Your task to perform on an android device: Show me popular videos on Youtube Image 0: 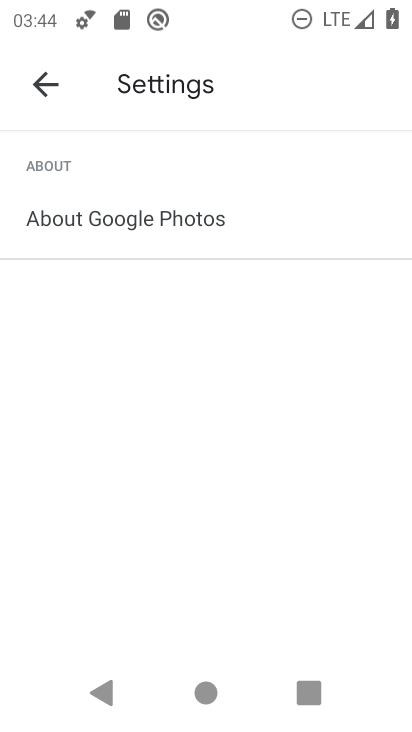
Step 0: press back button
Your task to perform on an android device: Show me popular videos on Youtube Image 1: 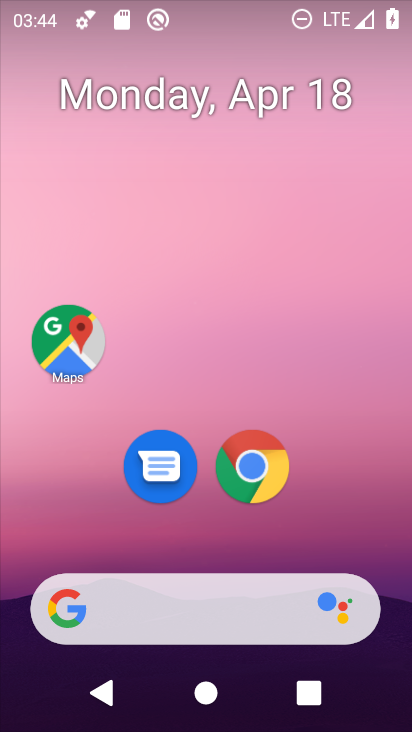
Step 1: drag from (305, 548) to (285, 120)
Your task to perform on an android device: Show me popular videos on Youtube Image 2: 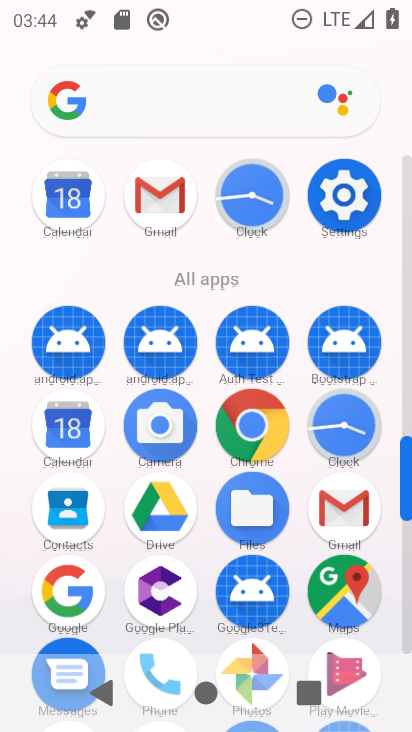
Step 2: drag from (405, 465) to (406, 712)
Your task to perform on an android device: Show me popular videos on Youtube Image 3: 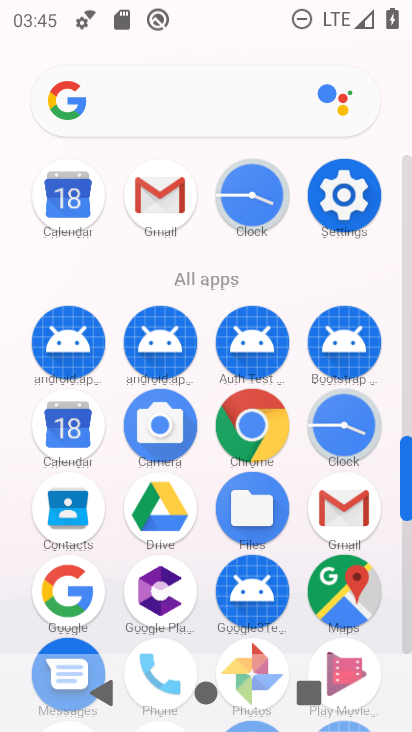
Step 3: drag from (408, 504) to (411, 681)
Your task to perform on an android device: Show me popular videos on Youtube Image 4: 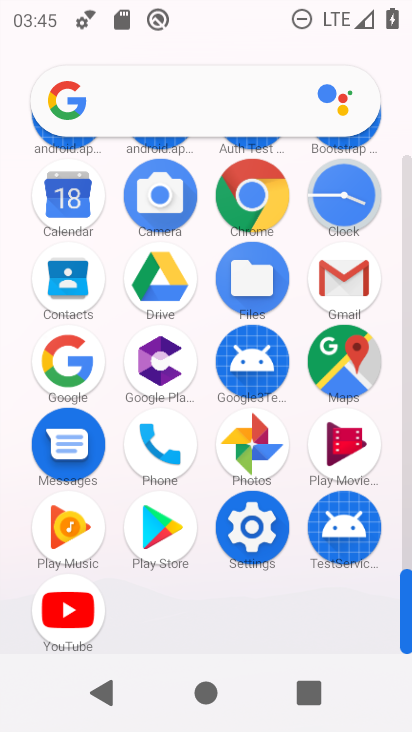
Step 4: click (87, 629)
Your task to perform on an android device: Show me popular videos on Youtube Image 5: 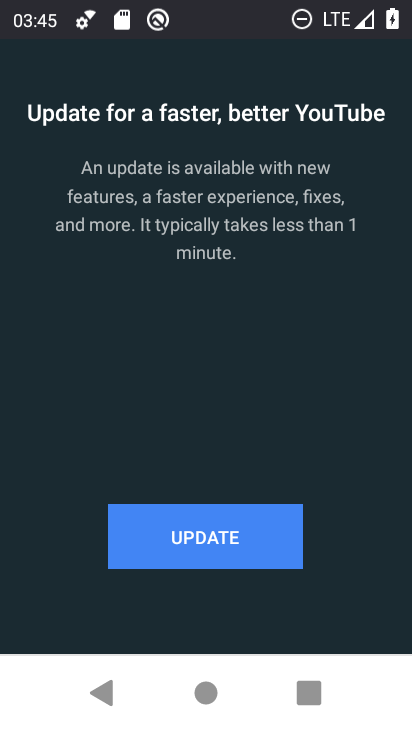
Step 5: click (232, 557)
Your task to perform on an android device: Show me popular videos on Youtube Image 6: 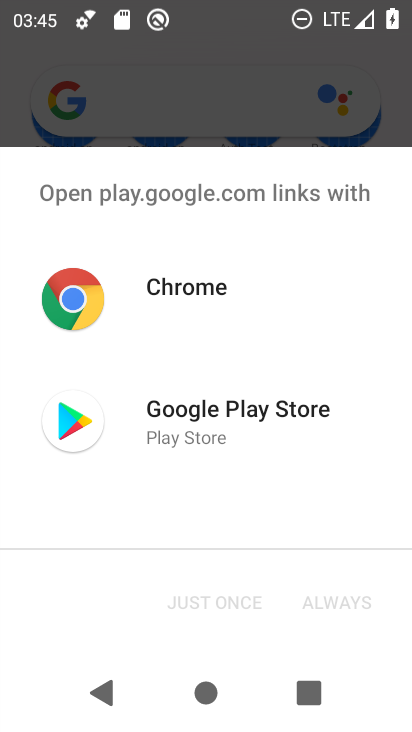
Step 6: click (195, 409)
Your task to perform on an android device: Show me popular videos on Youtube Image 7: 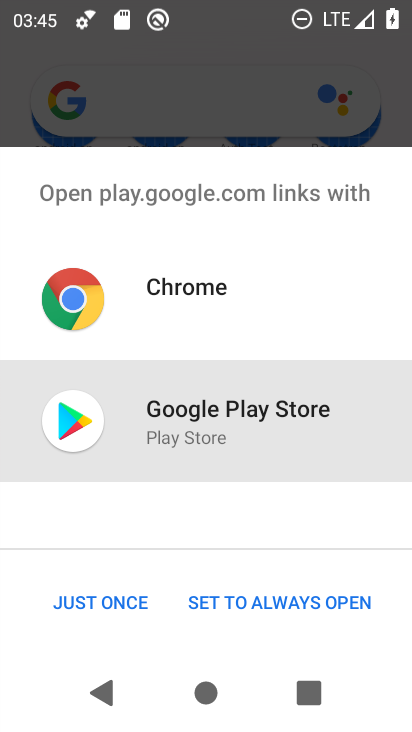
Step 7: click (235, 598)
Your task to perform on an android device: Show me popular videos on Youtube Image 8: 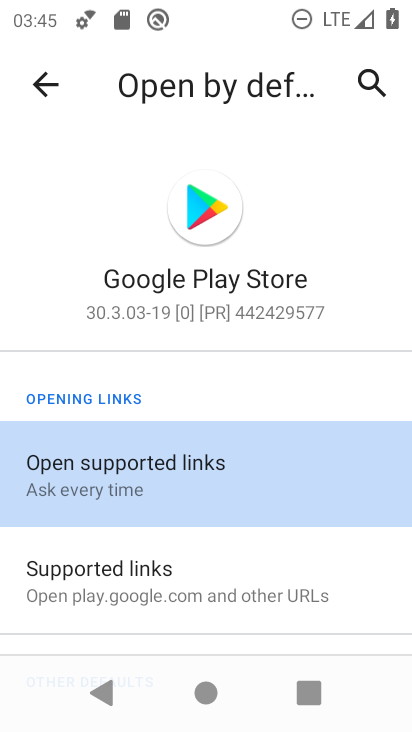
Step 8: click (53, 93)
Your task to perform on an android device: Show me popular videos on Youtube Image 9: 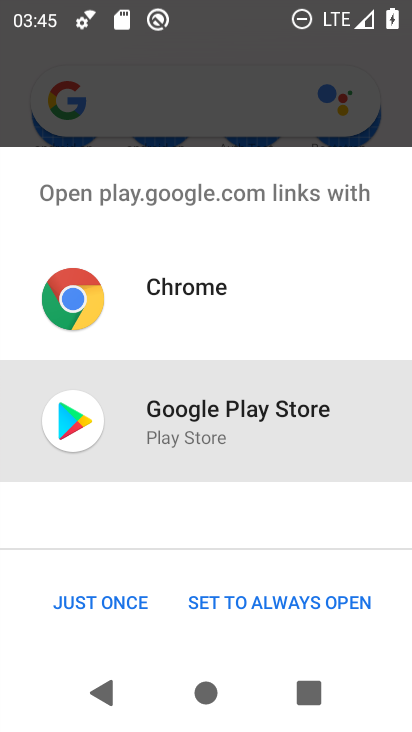
Step 9: click (342, 593)
Your task to perform on an android device: Show me popular videos on Youtube Image 10: 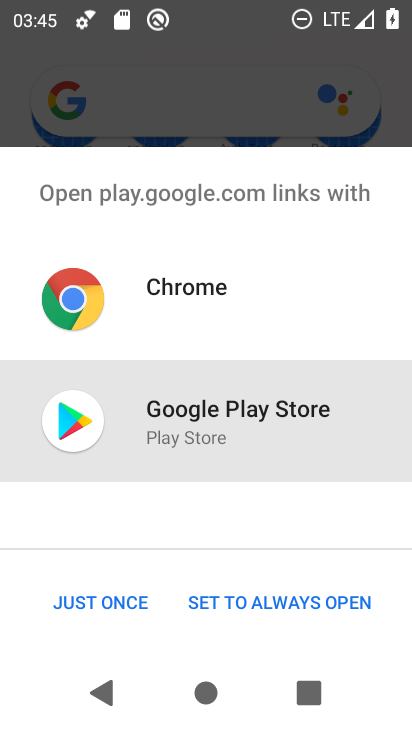
Step 10: click (342, 593)
Your task to perform on an android device: Show me popular videos on Youtube Image 11: 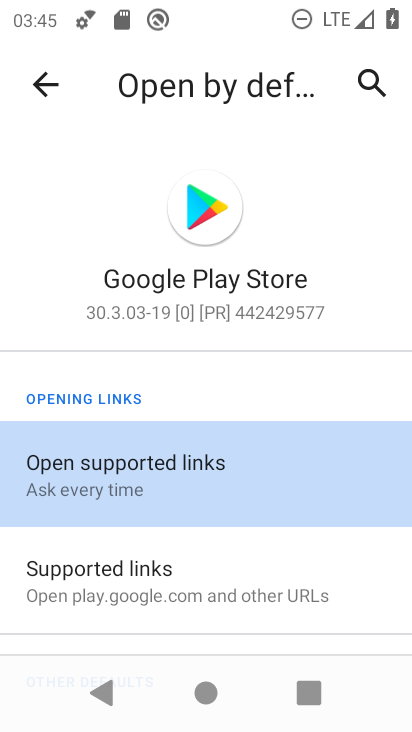
Step 11: click (40, 97)
Your task to perform on an android device: Show me popular videos on Youtube Image 12: 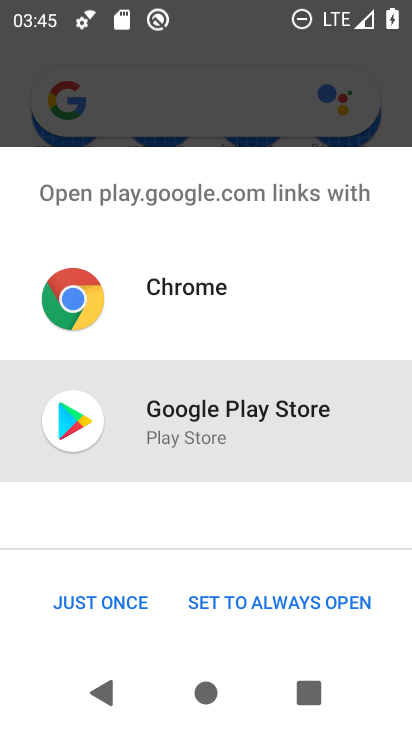
Step 12: click (124, 597)
Your task to perform on an android device: Show me popular videos on Youtube Image 13: 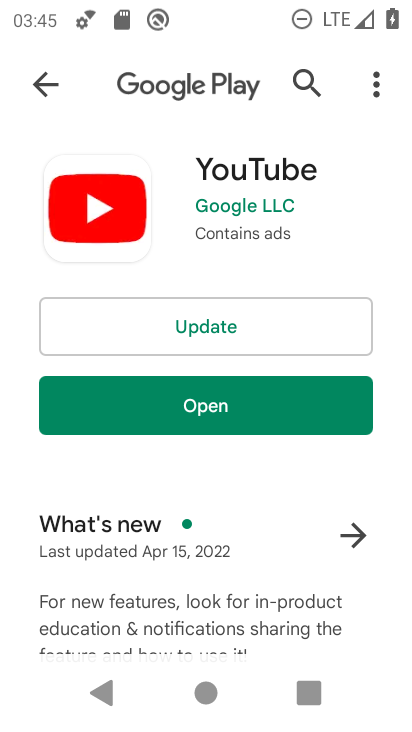
Step 13: click (130, 324)
Your task to perform on an android device: Show me popular videos on Youtube Image 14: 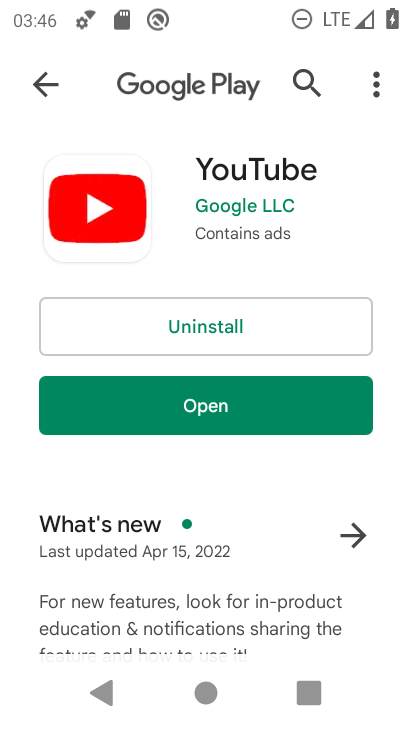
Step 14: click (164, 401)
Your task to perform on an android device: Show me popular videos on Youtube Image 15: 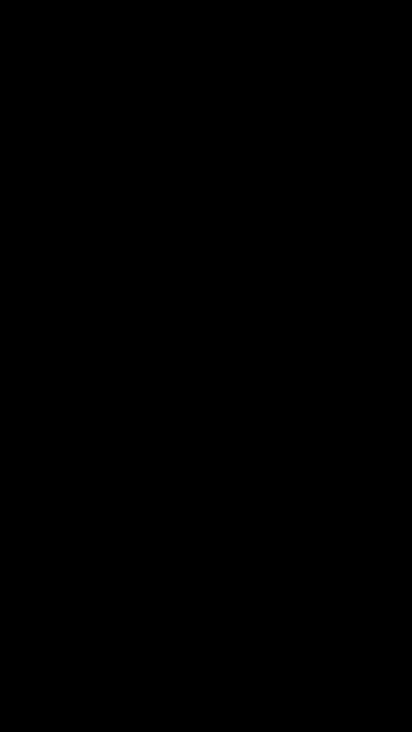
Step 15: task complete